Your task to perform on an android device: toggle wifi Image 0: 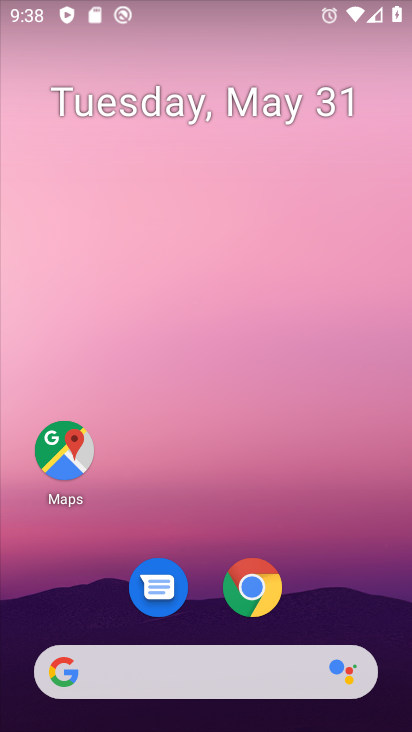
Step 0: drag from (343, 593) to (341, 214)
Your task to perform on an android device: toggle wifi Image 1: 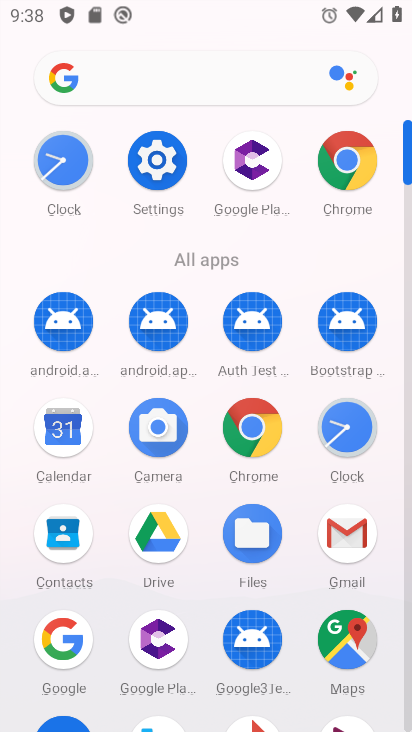
Step 1: click (158, 187)
Your task to perform on an android device: toggle wifi Image 2: 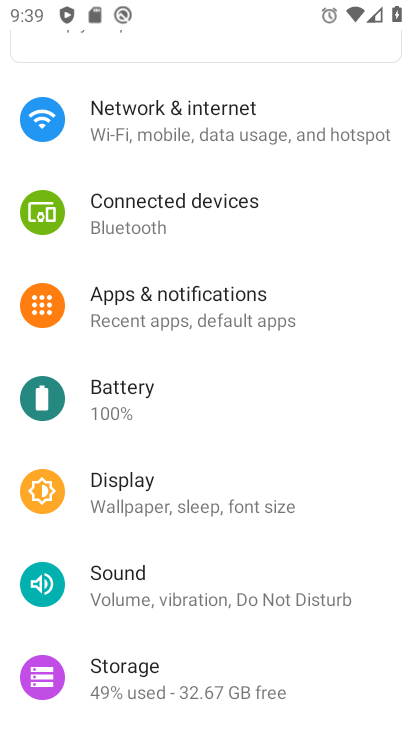
Step 2: drag from (345, 506) to (371, 410)
Your task to perform on an android device: toggle wifi Image 3: 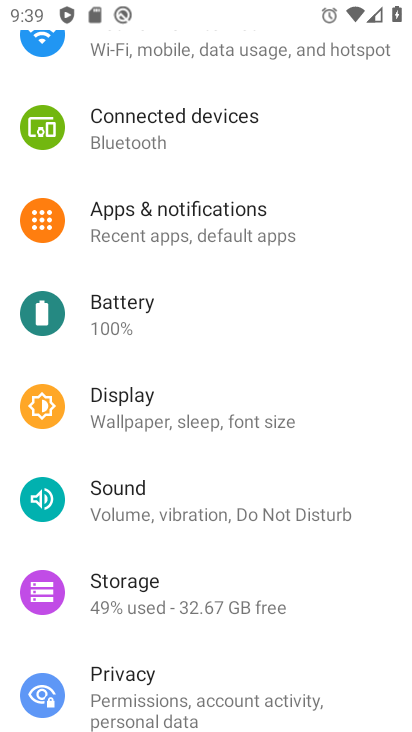
Step 3: drag from (365, 502) to (378, 392)
Your task to perform on an android device: toggle wifi Image 4: 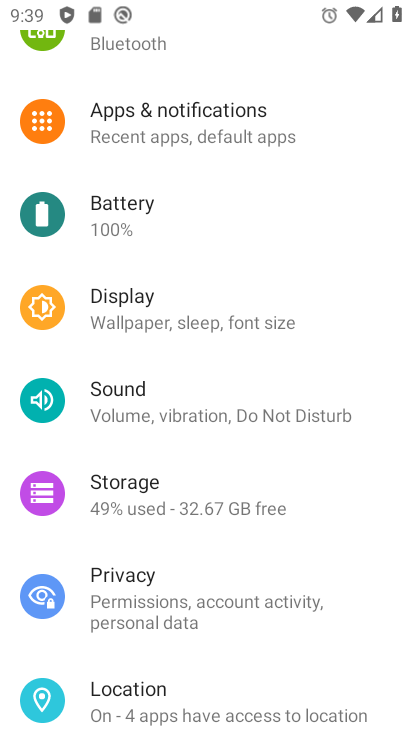
Step 4: drag from (352, 529) to (355, 437)
Your task to perform on an android device: toggle wifi Image 5: 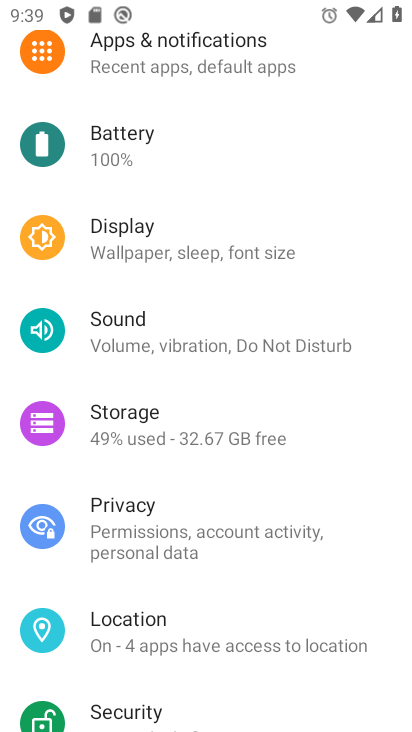
Step 5: drag from (347, 547) to (345, 430)
Your task to perform on an android device: toggle wifi Image 6: 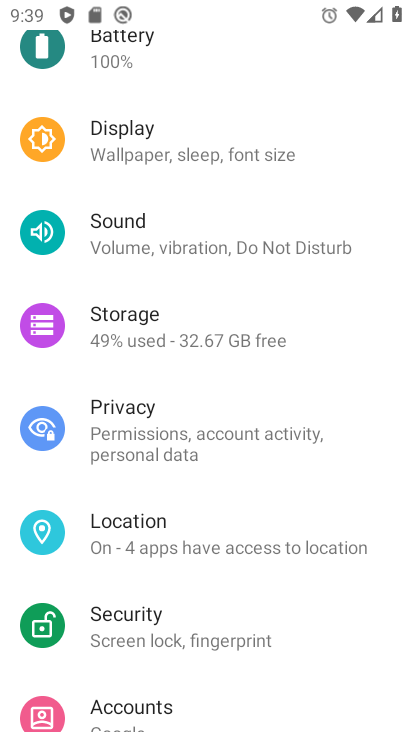
Step 6: drag from (350, 475) to (357, 364)
Your task to perform on an android device: toggle wifi Image 7: 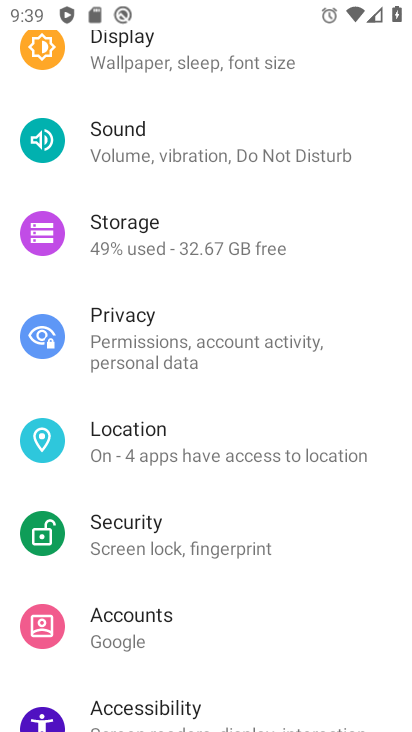
Step 7: drag from (352, 263) to (347, 385)
Your task to perform on an android device: toggle wifi Image 8: 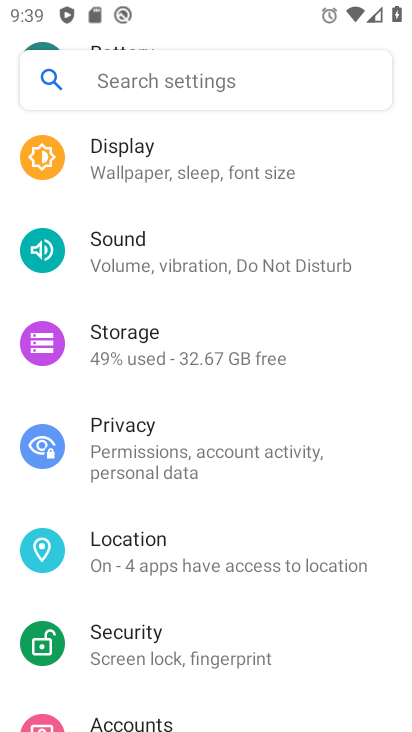
Step 8: drag from (340, 293) to (341, 380)
Your task to perform on an android device: toggle wifi Image 9: 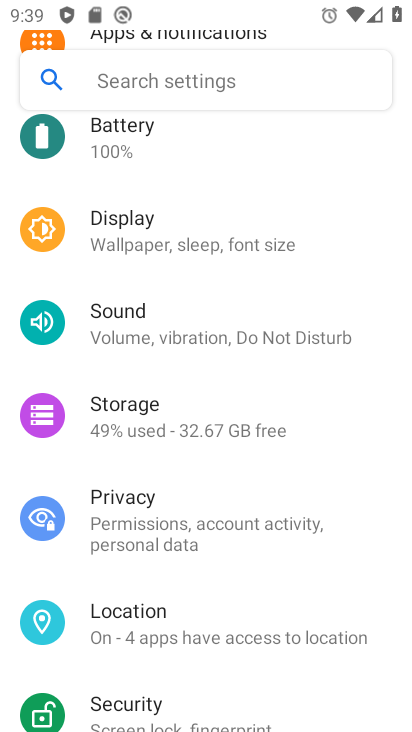
Step 9: drag from (333, 232) to (319, 363)
Your task to perform on an android device: toggle wifi Image 10: 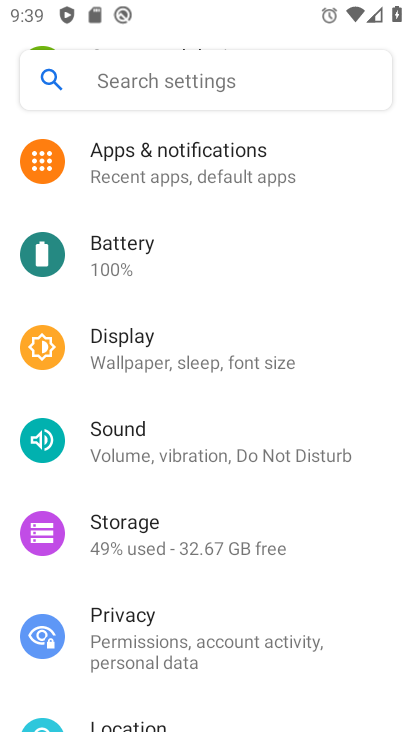
Step 10: drag from (328, 203) to (343, 360)
Your task to perform on an android device: toggle wifi Image 11: 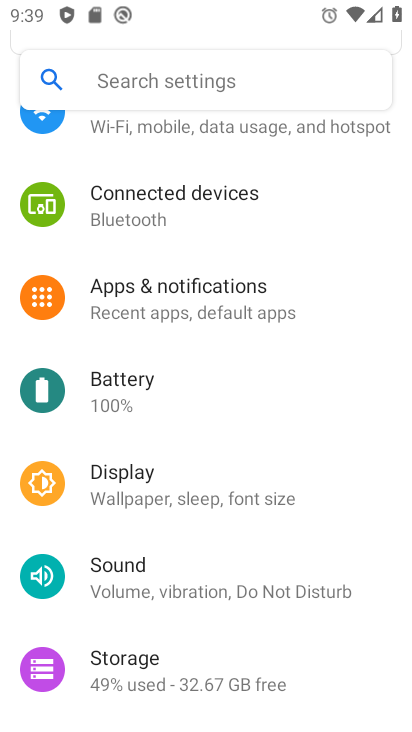
Step 11: drag from (329, 188) to (373, 369)
Your task to perform on an android device: toggle wifi Image 12: 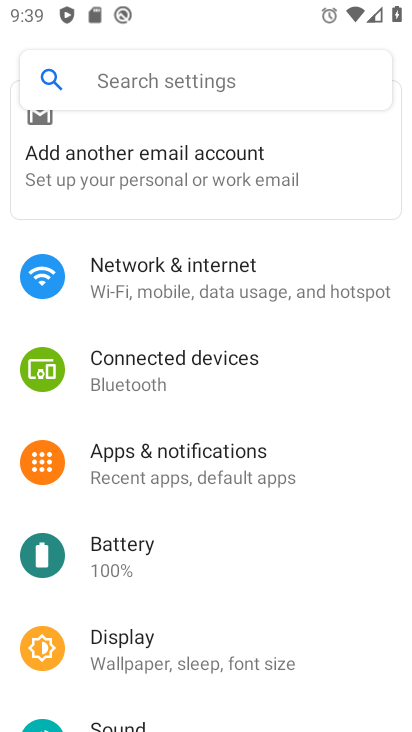
Step 12: click (265, 287)
Your task to perform on an android device: toggle wifi Image 13: 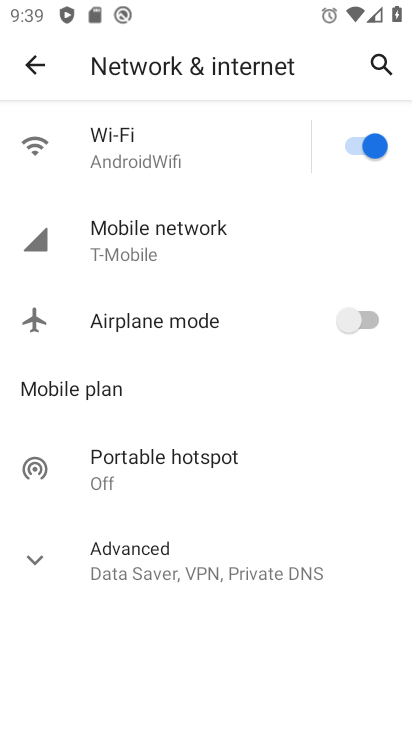
Step 13: click (371, 152)
Your task to perform on an android device: toggle wifi Image 14: 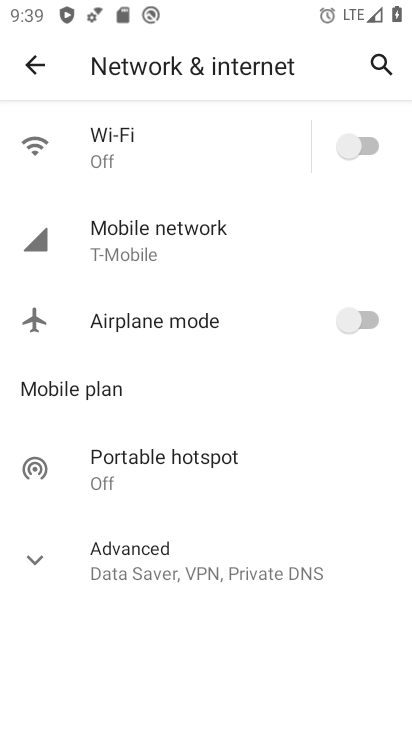
Step 14: task complete